Your task to perform on an android device: Open accessibility settings Image 0: 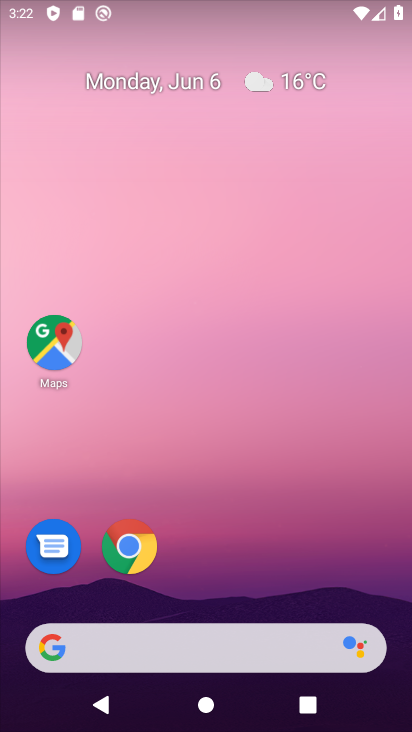
Step 0: drag from (238, 432) to (245, 10)
Your task to perform on an android device: Open accessibility settings Image 1: 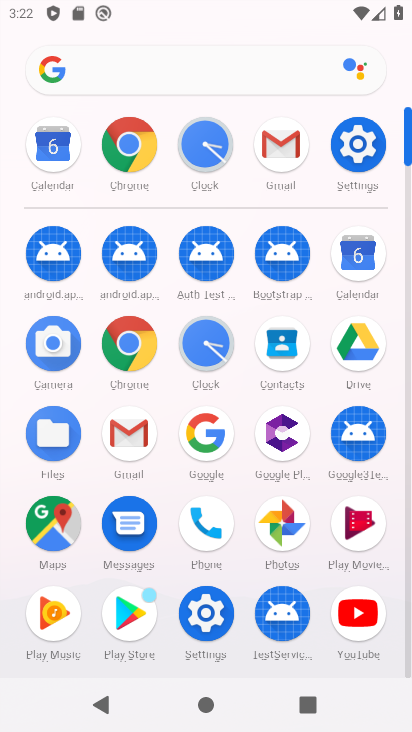
Step 1: click (366, 156)
Your task to perform on an android device: Open accessibility settings Image 2: 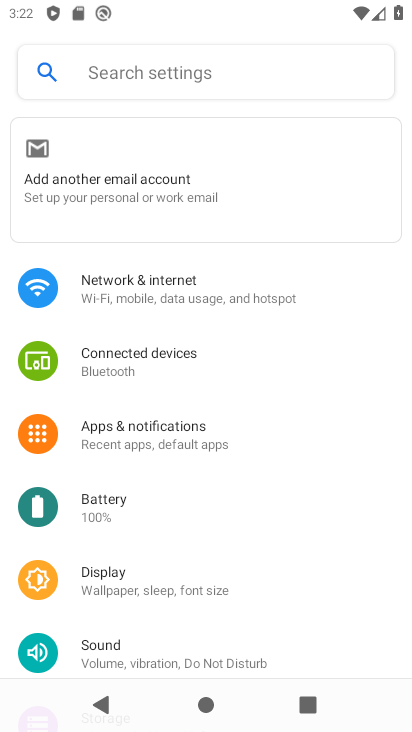
Step 2: drag from (295, 589) to (264, 180)
Your task to perform on an android device: Open accessibility settings Image 3: 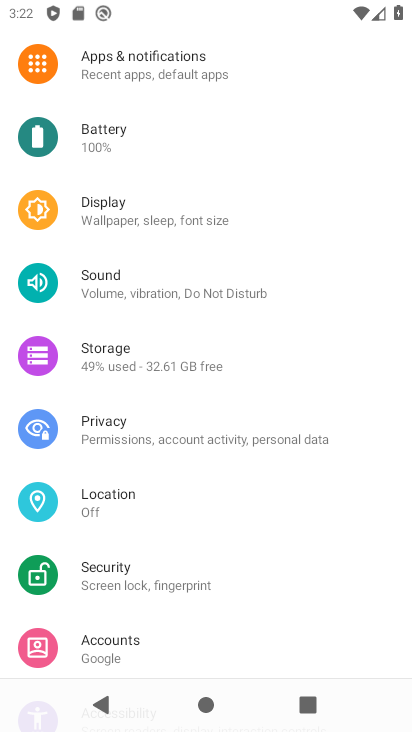
Step 3: drag from (210, 578) to (171, 154)
Your task to perform on an android device: Open accessibility settings Image 4: 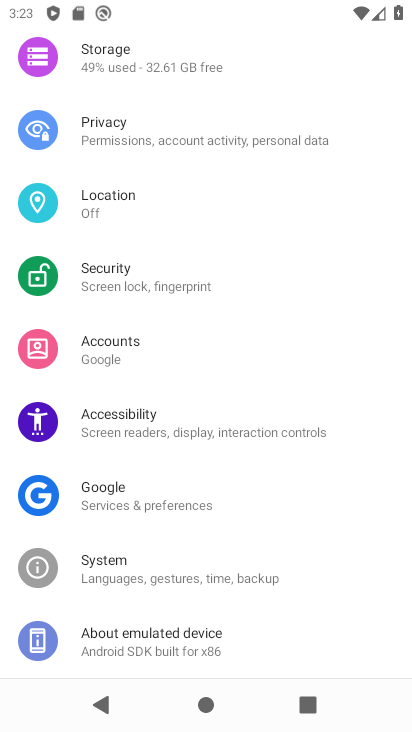
Step 4: click (144, 420)
Your task to perform on an android device: Open accessibility settings Image 5: 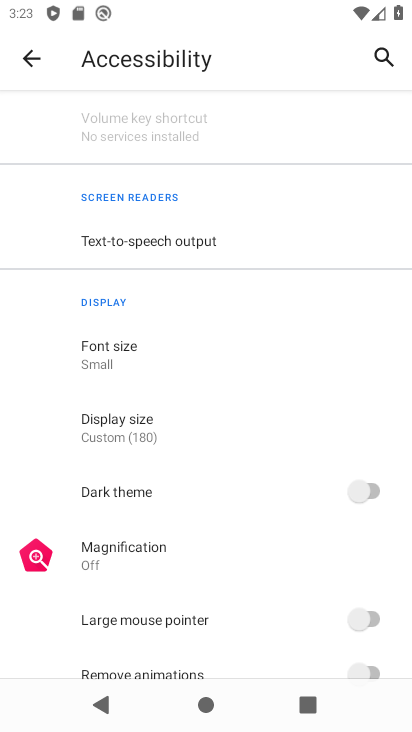
Step 5: task complete